Your task to perform on an android device: set an alarm Image 0: 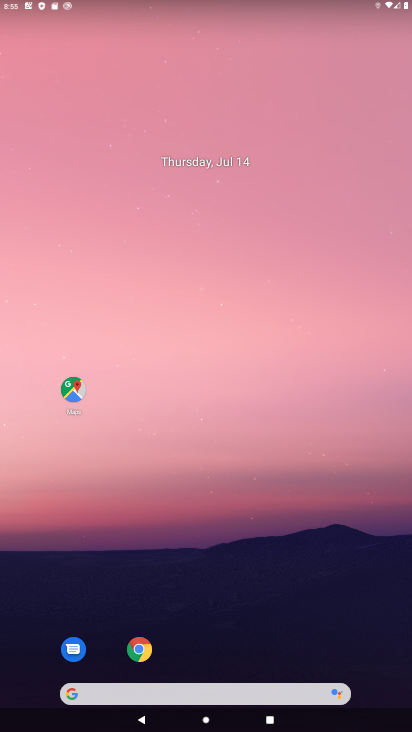
Step 0: drag from (174, 712) to (88, 22)
Your task to perform on an android device: set an alarm Image 1: 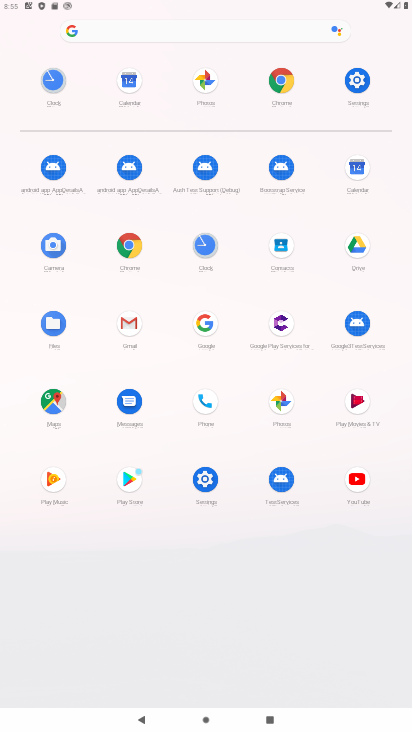
Step 1: click (210, 248)
Your task to perform on an android device: set an alarm Image 2: 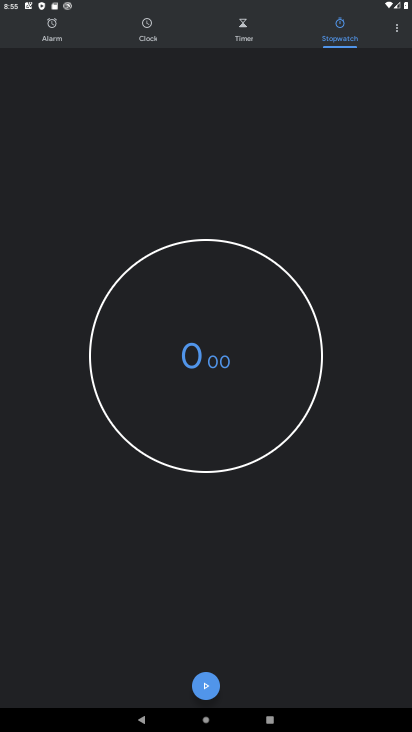
Step 2: click (48, 43)
Your task to perform on an android device: set an alarm Image 3: 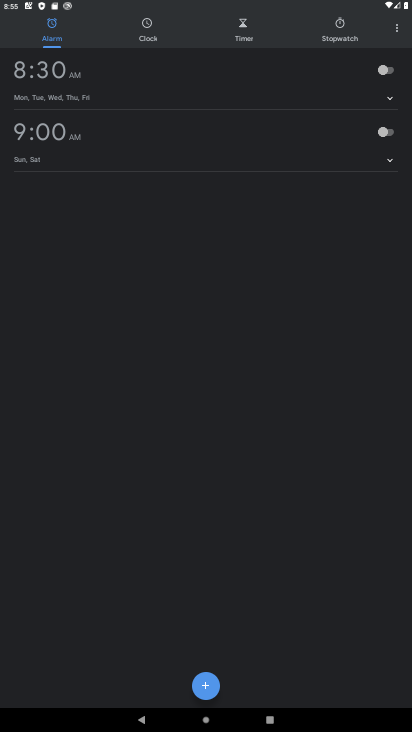
Step 3: click (208, 686)
Your task to perform on an android device: set an alarm Image 4: 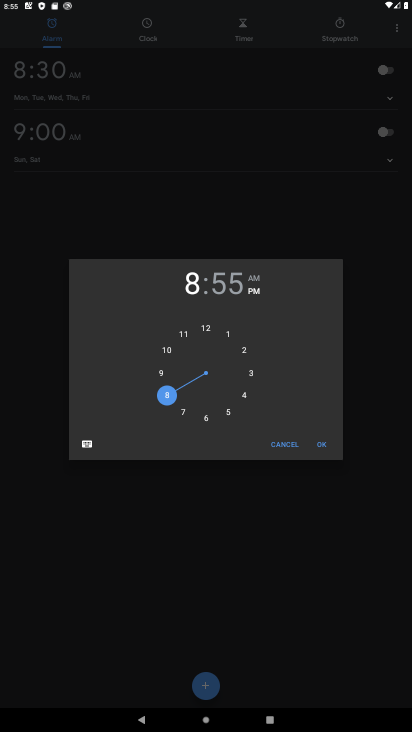
Step 4: click (323, 441)
Your task to perform on an android device: set an alarm Image 5: 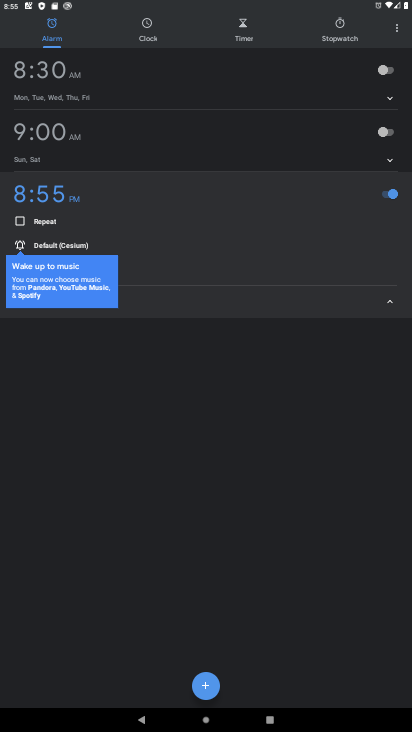
Step 5: task complete